Your task to perform on an android device: What's the weather going to be this weekend? Image 0: 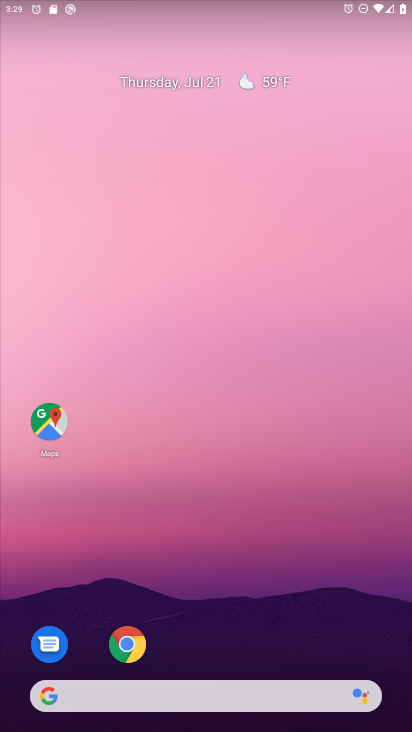
Step 0: click (179, 693)
Your task to perform on an android device: What's the weather going to be this weekend? Image 1: 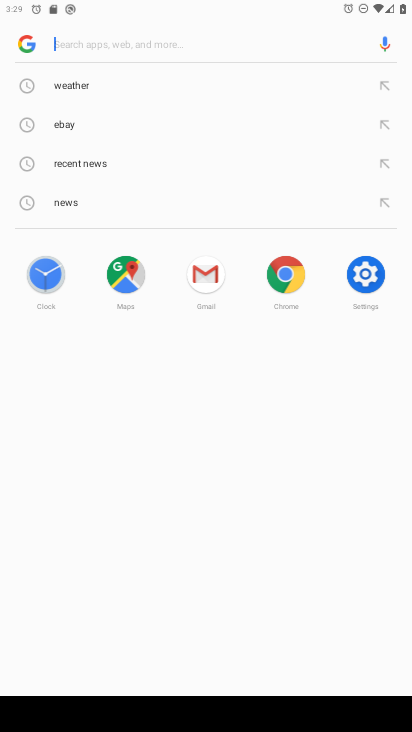
Step 1: click (96, 94)
Your task to perform on an android device: What's the weather going to be this weekend? Image 2: 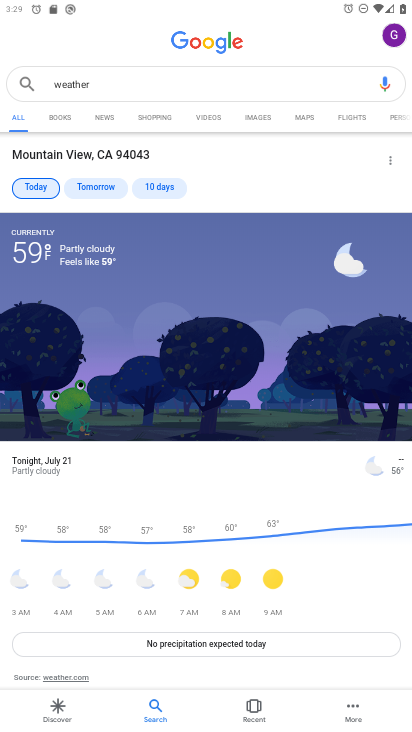
Step 2: click (162, 186)
Your task to perform on an android device: What's the weather going to be this weekend? Image 3: 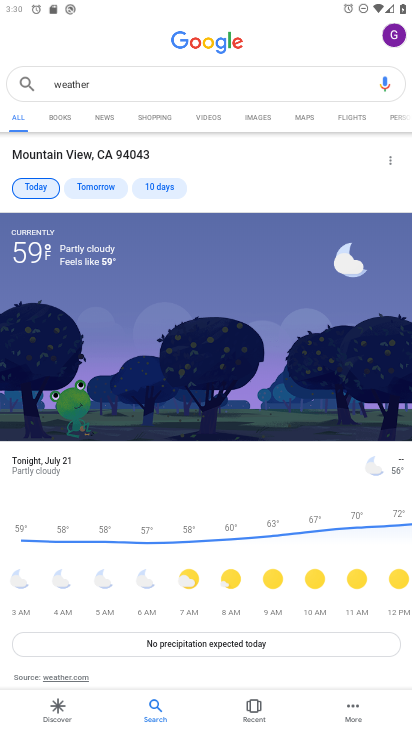
Step 3: task complete